Your task to perform on an android device: Open CNN.com Image 0: 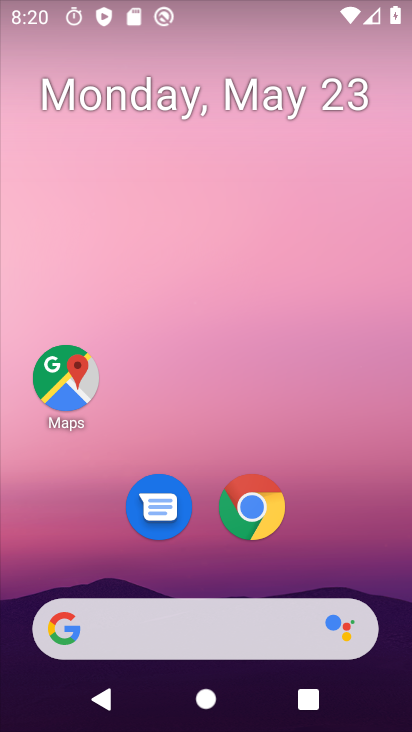
Step 0: drag from (356, 557) to (338, 27)
Your task to perform on an android device: Open CNN.com Image 1: 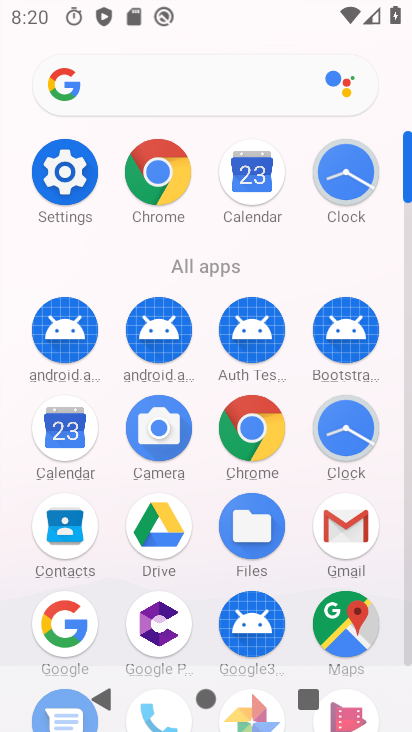
Step 1: click (156, 167)
Your task to perform on an android device: Open CNN.com Image 2: 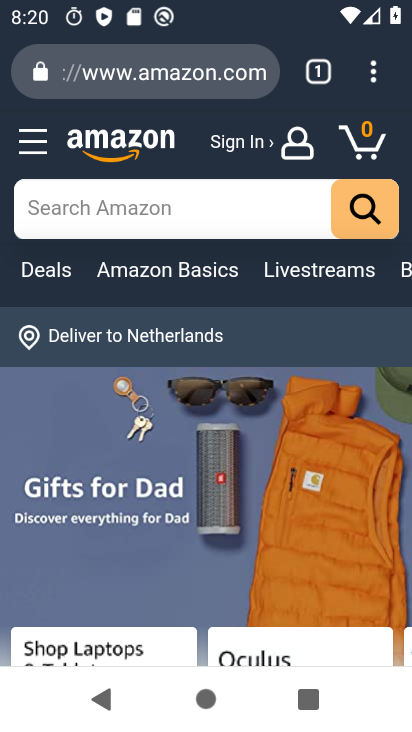
Step 2: click (152, 75)
Your task to perform on an android device: Open CNN.com Image 3: 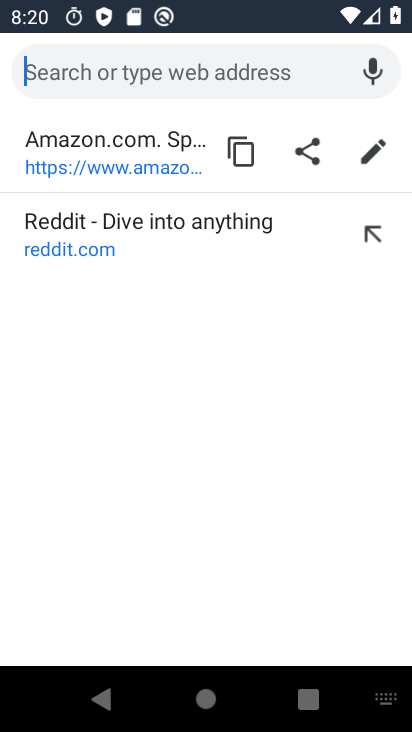
Step 3: type "cnn"
Your task to perform on an android device: Open CNN.com Image 4: 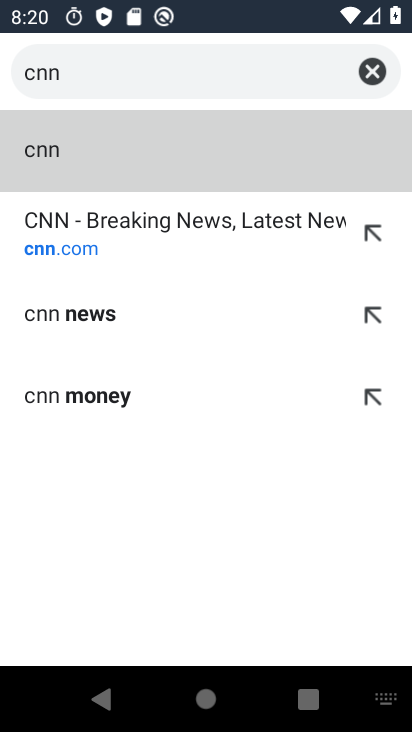
Step 4: click (27, 231)
Your task to perform on an android device: Open CNN.com Image 5: 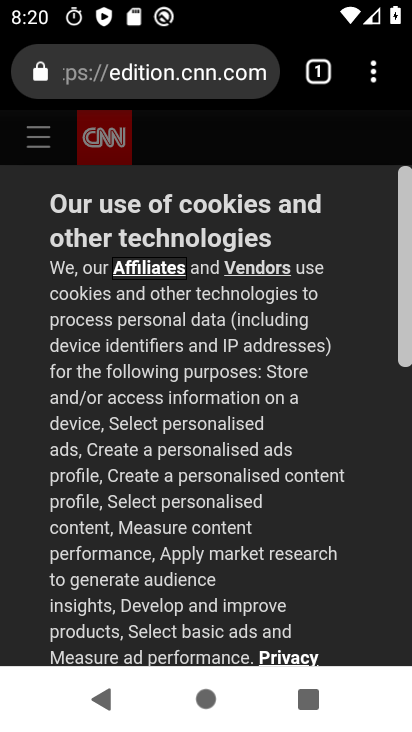
Step 5: task complete